Your task to perform on an android device: turn smart compose on in the gmail app Image 0: 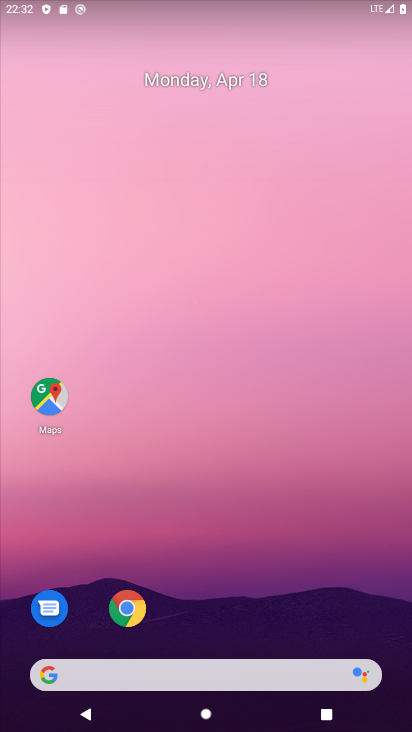
Step 0: drag from (210, 578) to (161, 61)
Your task to perform on an android device: turn smart compose on in the gmail app Image 1: 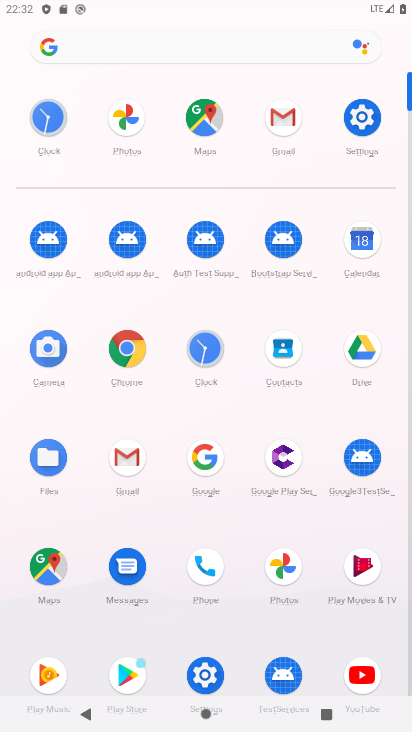
Step 1: click (284, 123)
Your task to perform on an android device: turn smart compose on in the gmail app Image 2: 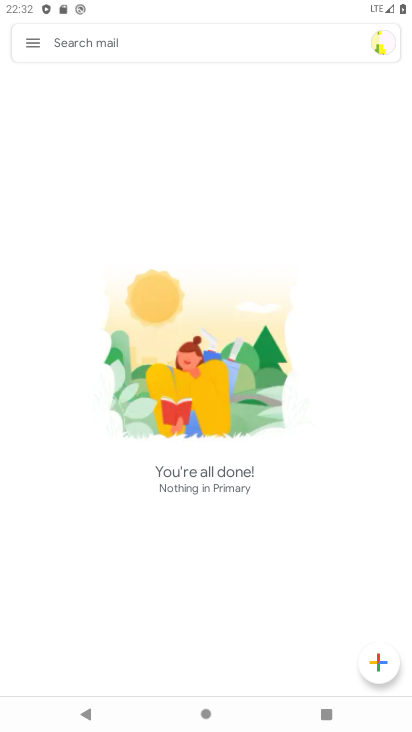
Step 2: click (28, 41)
Your task to perform on an android device: turn smart compose on in the gmail app Image 3: 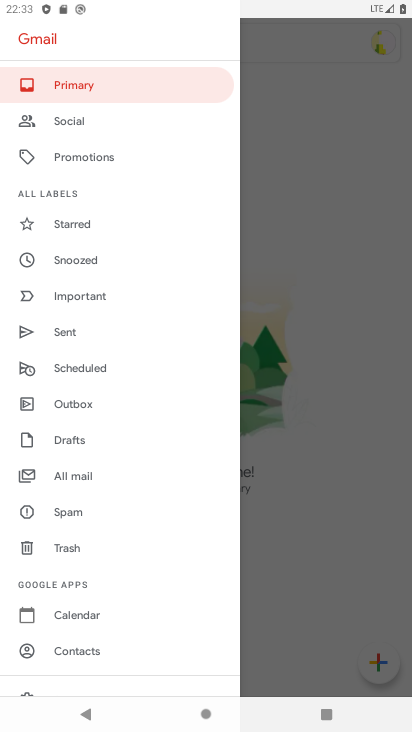
Step 3: drag from (113, 649) to (98, 212)
Your task to perform on an android device: turn smart compose on in the gmail app Image 4: 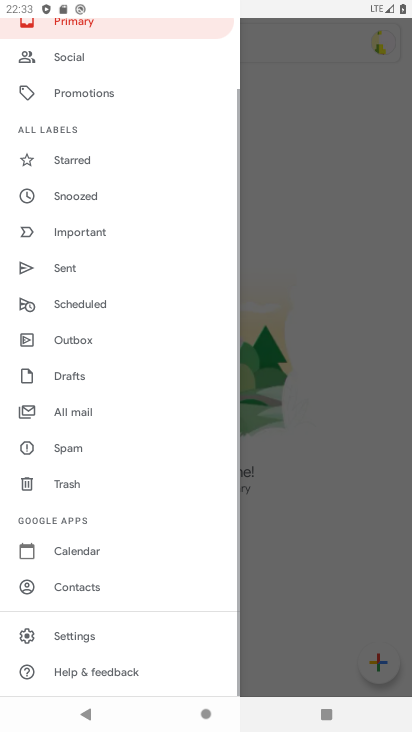
Step 4: click (99, 632)
Your task to perform on an android device: turn smart compose on in the gmail app Image 5: 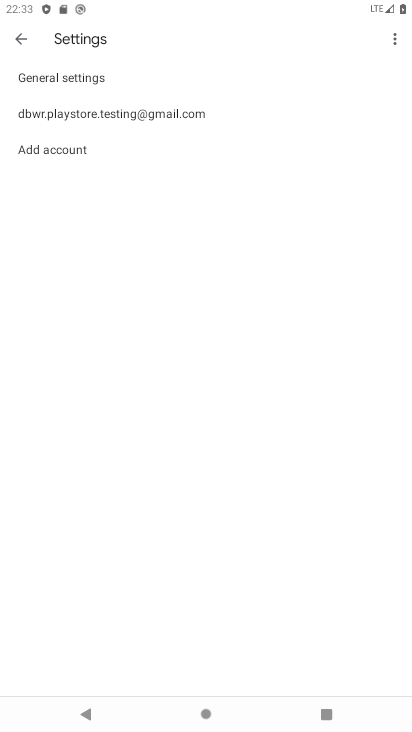
Step 5: click (102, 109)
Your task to perform on an android device: turn smart compose on in the gmail app Image 6: 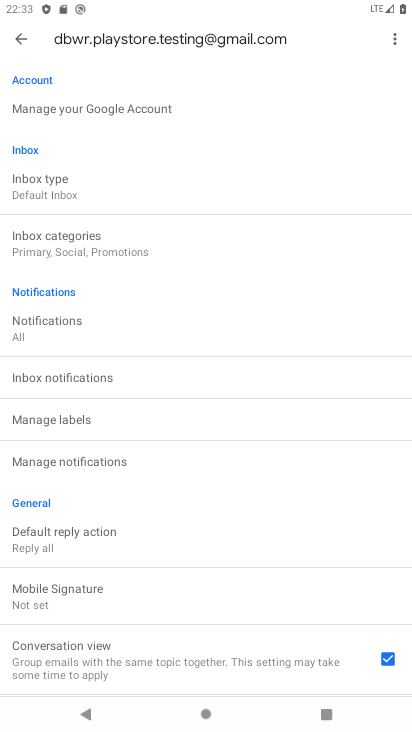
Step 6: task complete